Your task to perform on an android device: change the clock style Image 0: 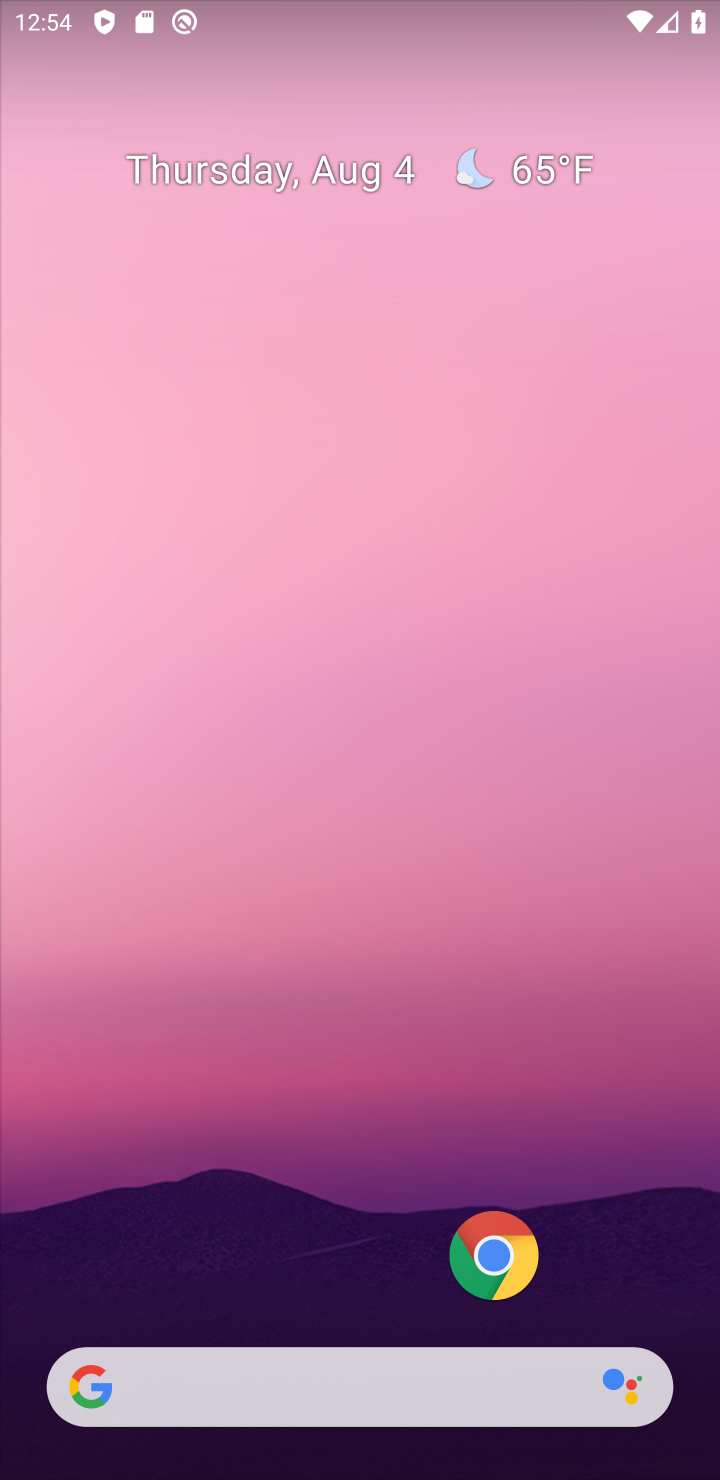
Step 0: drag from (346, 790) to (514, 207)
Your task to perform on an android device: change the clock style Image 1: 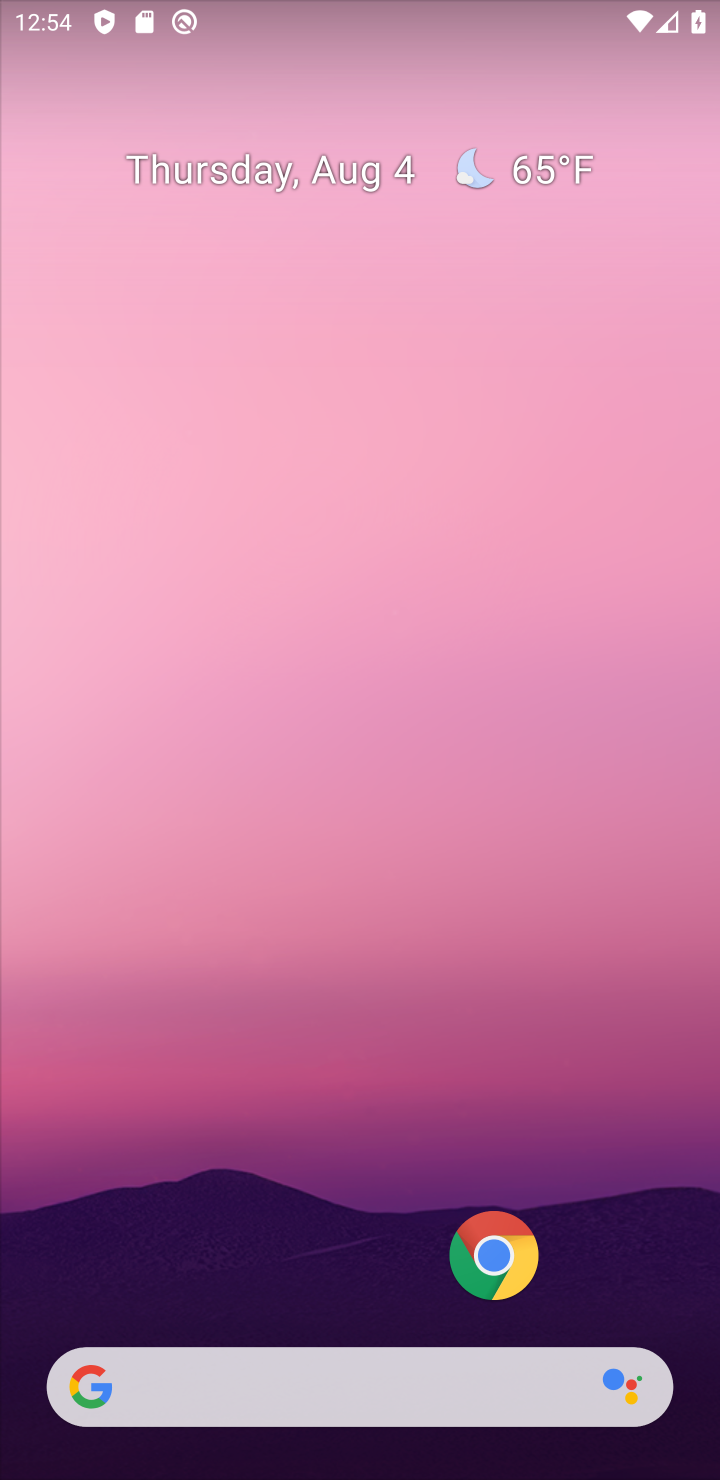
Step 1: drag from (162, 1287) to (385, 181)
Your task to perform on an android device: change the clock style Image 2: 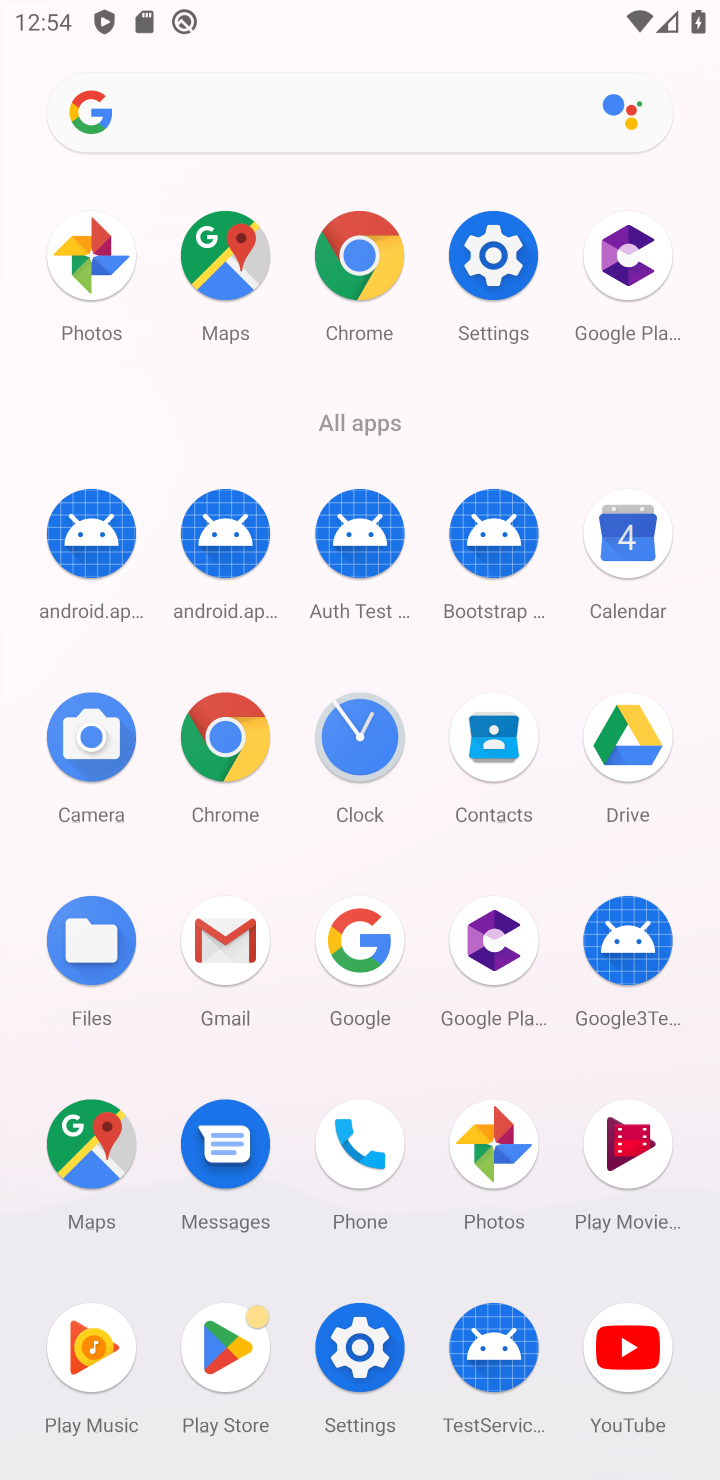
Step 2: click (355, 762)
Your task to perform on an android device: change the clock style Image 3: 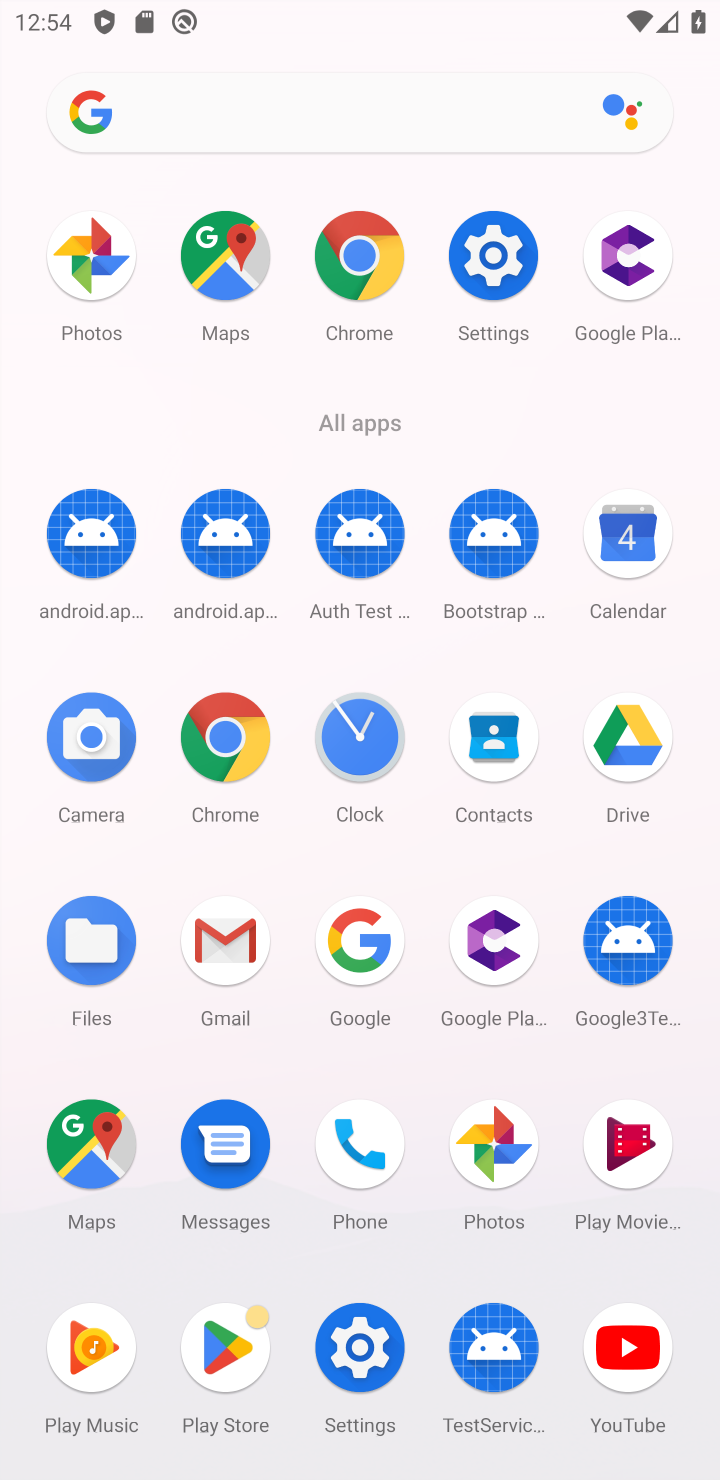
Step 3: click (368, 750)
Your task to perform on an android device: change the clock style Image 4: 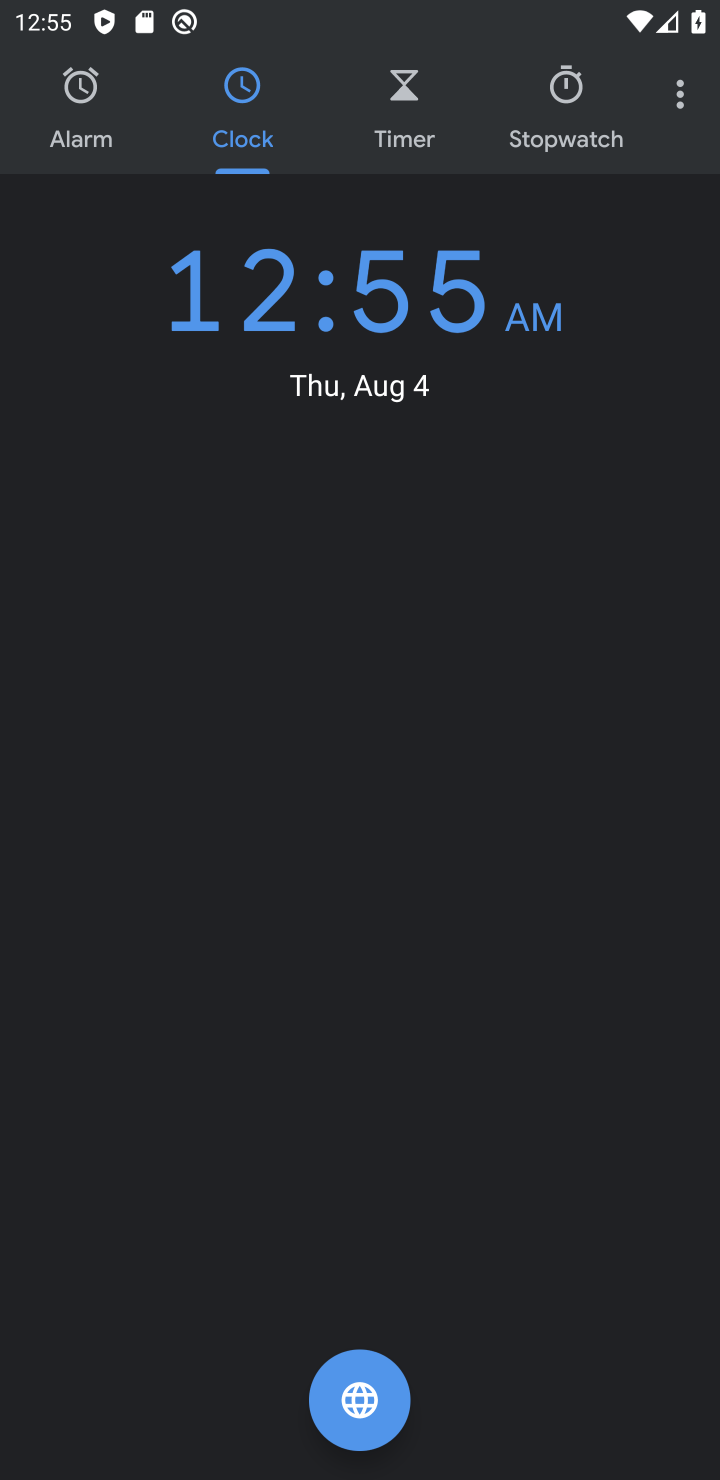
Step 4: click (692, 116)
Your task to perform on an android device: change the clock style Image 5: 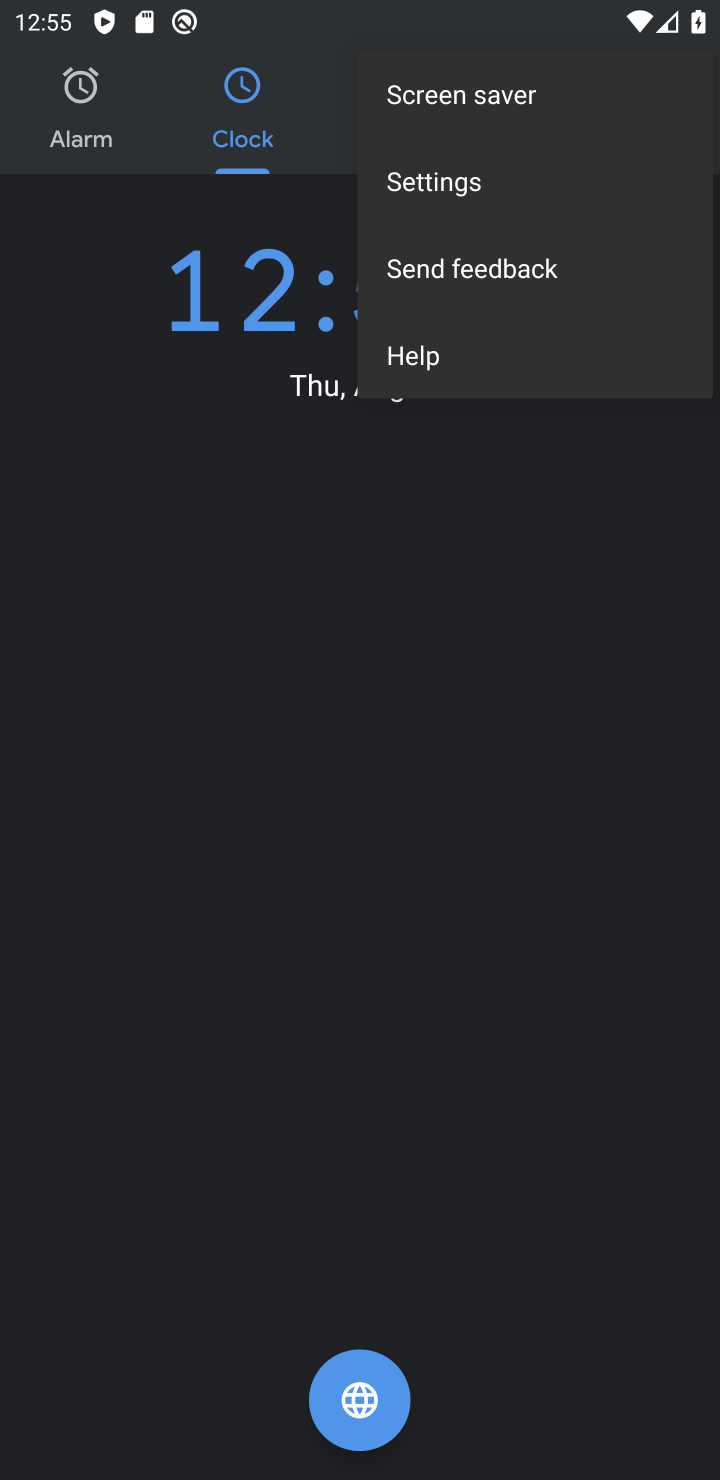
Step 5: click (475, 185)
Your task to perform on an android device: change the clock style Image 6: 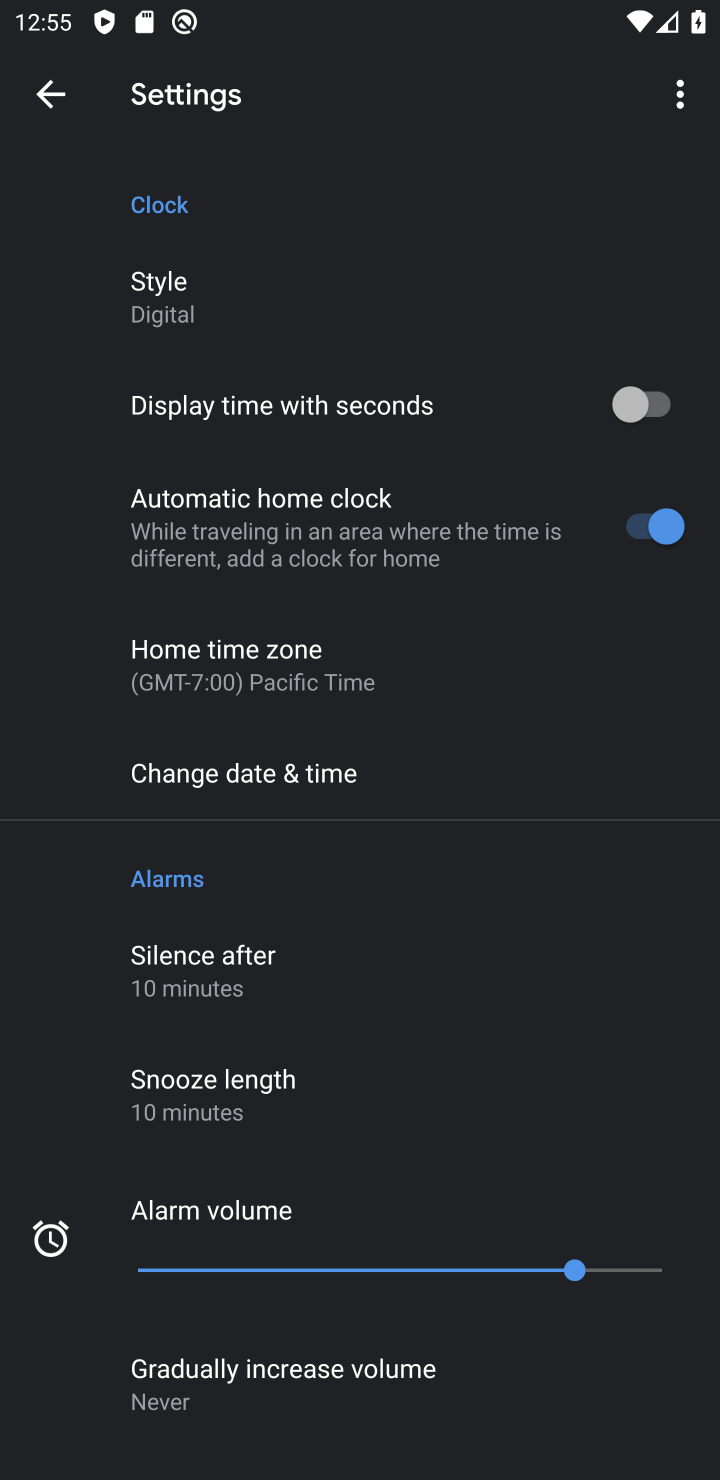
Step 6: click (210, 317)
Your task to perform on an android device: change the clock style Image 7: 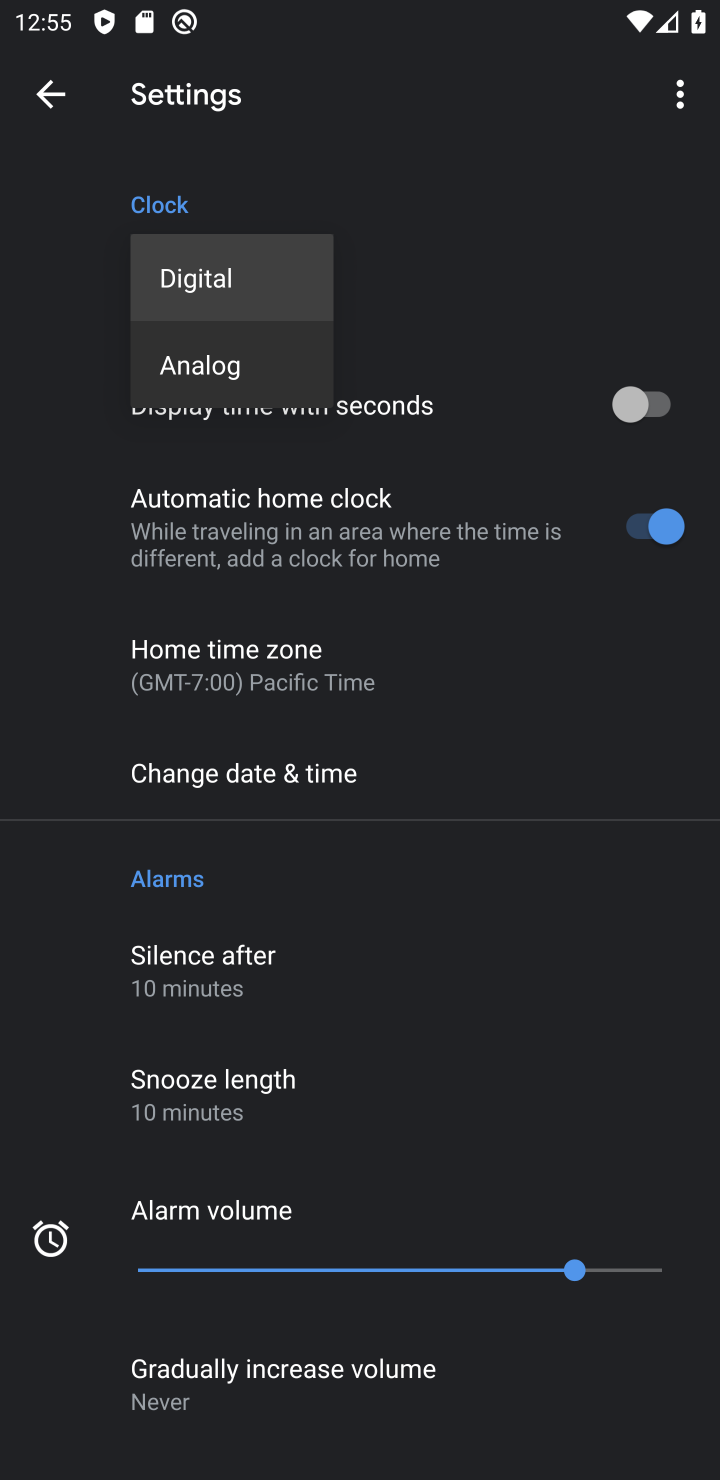
Step 7: click (250, 403)
Your task to perform on an android device: change the clock style Image 8: 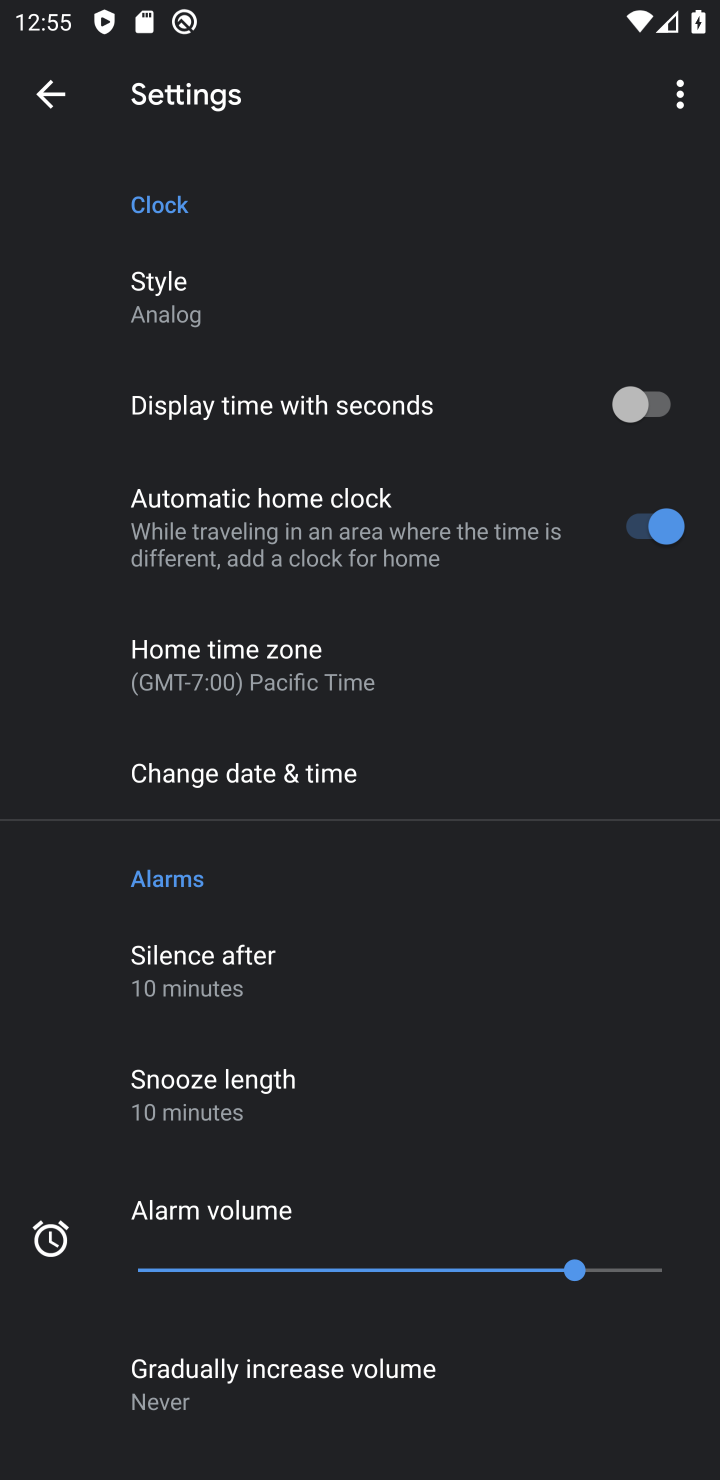
Step 8: task complete